Your task to perform on an android device: uninstall "Instagram" Image 0: 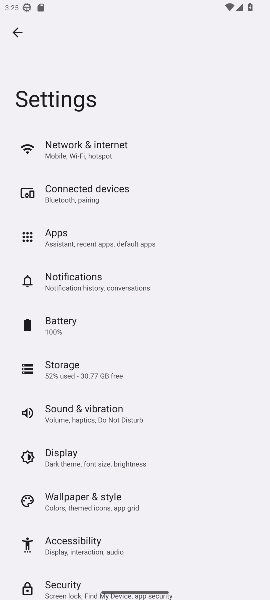
Step 0: press home button
Your task to perform on an android device: uninstall "Instagram" Image 1: 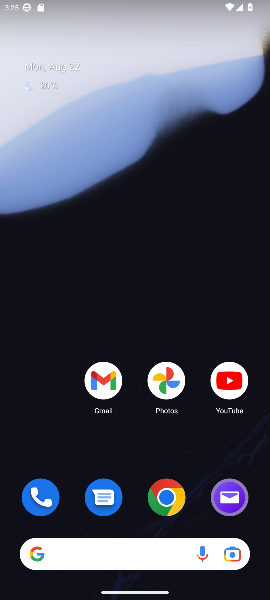
Step 1: drag from (56, 433) to (49, 83)
Your task to perform on an android device: uninstall "Instagram" Image 2: 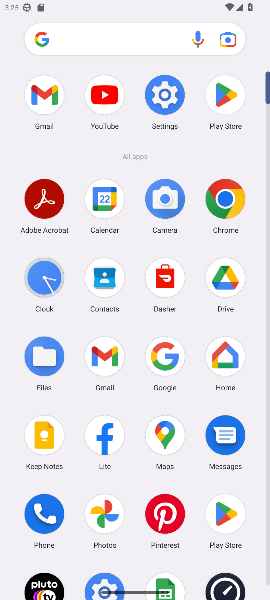
Step 2: click (231, 95)
Your task to perform on an android device: uninstall "Instagram" Image 3: 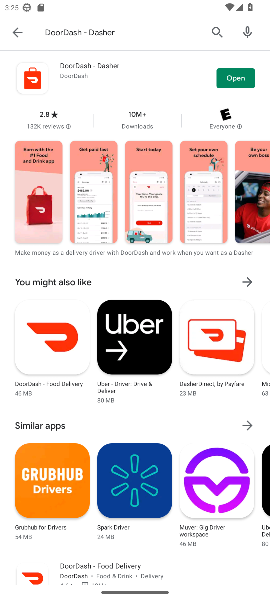
Step 3: press back button
Your task to perform on an android device: uninstall "Instagram" Image 4: 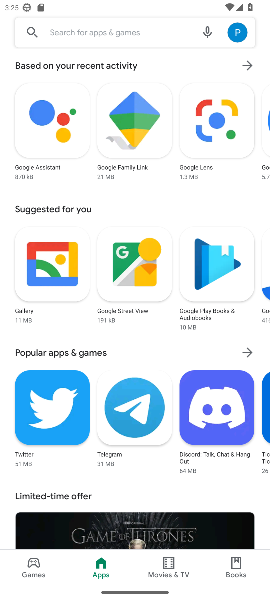
Step 4: click (117, 32)
Your task to perform on an android device: uninstall "Instagram" Image 5: 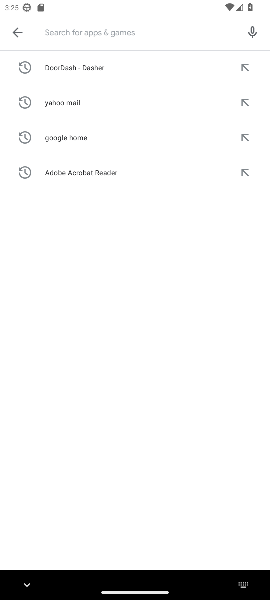
Step 5: type "instagram"
Your task to perform on an android device: uninstall "Instagram" Image 6: 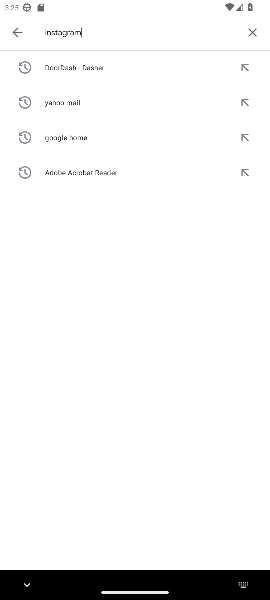
Step 6: press enter
Your task to perform on an android device: uninstall "Instagram" Image 7: 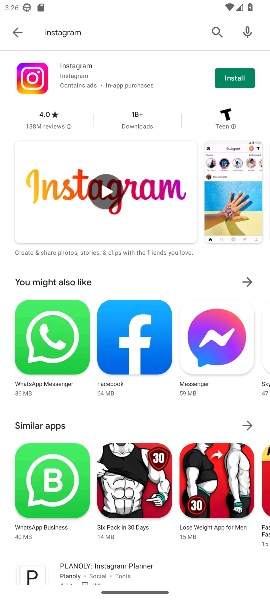
Step 7: task complete